Your task to perform on an android device: toggle wifi Image 0: 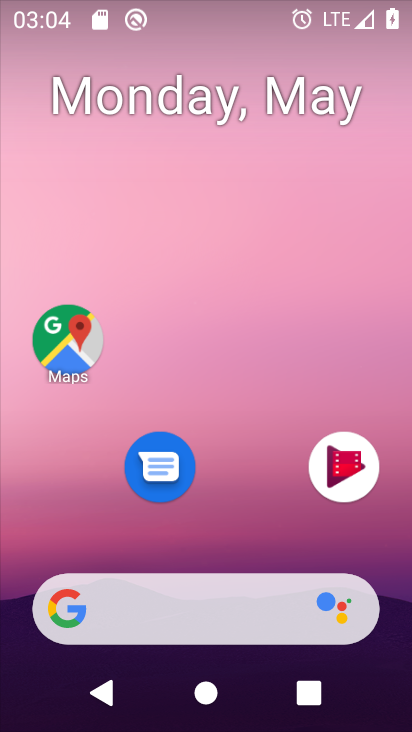
Step 0: drag from (224, 562) to (256, 156)
Your task to perform on an android device: toggle wifi Image 1: 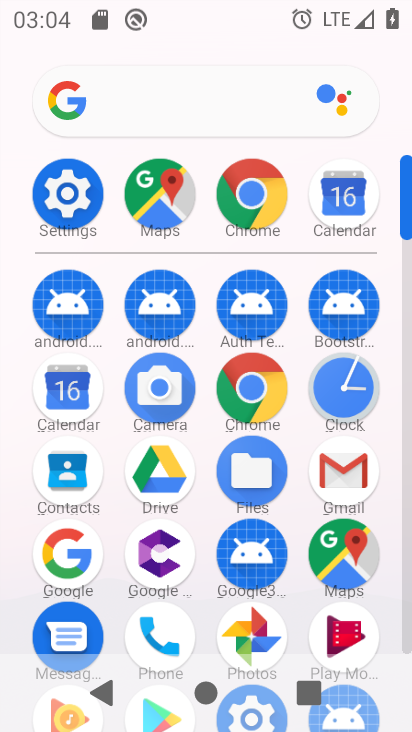
Step 1: click (58, 196)
Your task to perform on an android device: toggle wifi Image 2: 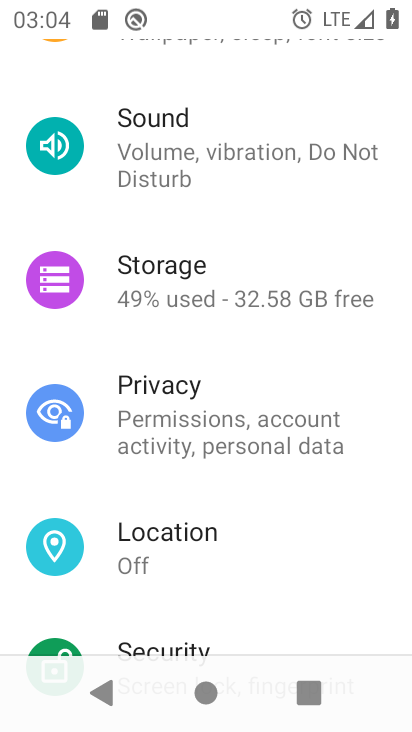
Step 2: drag from (300, 159) to (259, 501)
Your task to perform on an android device: toggle wifi Image 3: 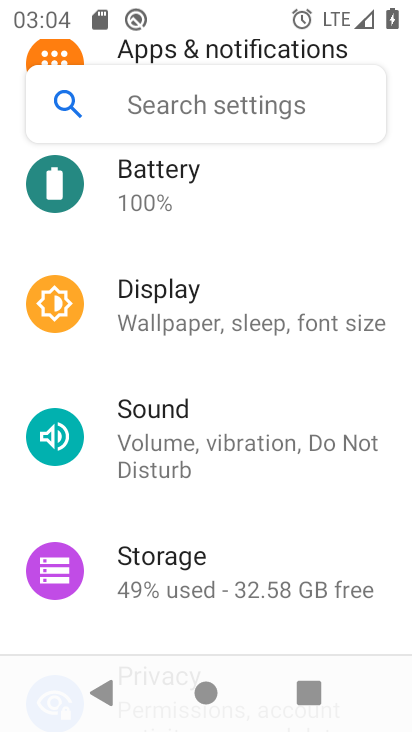
Step 3: drag from (262, 222) to (210, 635)
Your task to perform on an android device: toggle wifi Image 4: 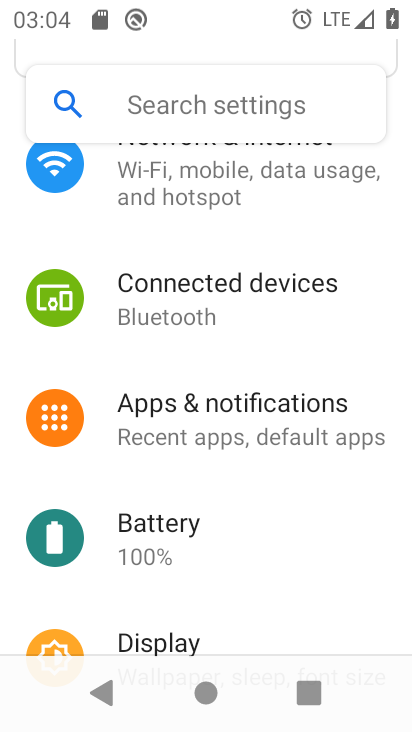
Step 4: drag from (273, 271) to (253, 506)
Your task to perform on an android device: toggle wifi Image 5: 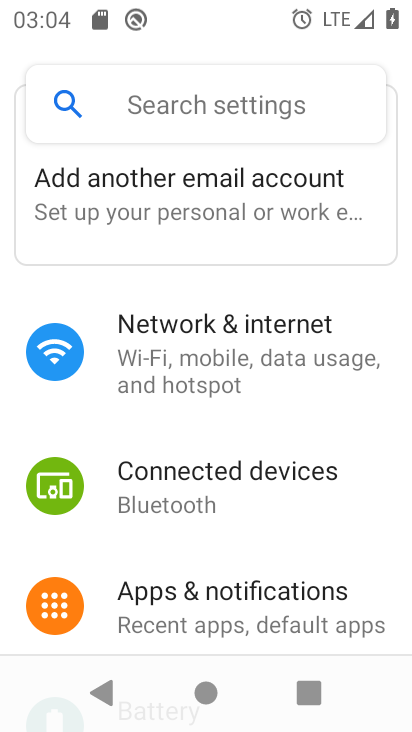
Step 5: click (246, 328)
Your task to perform on an android device: toggle wifi Image 6: 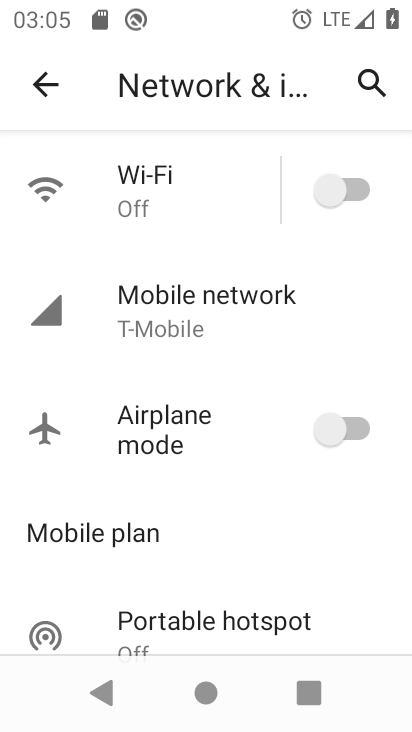
Step 6: click (345, 193)
Your task to perform on an android device: toggle wifi Image 7: 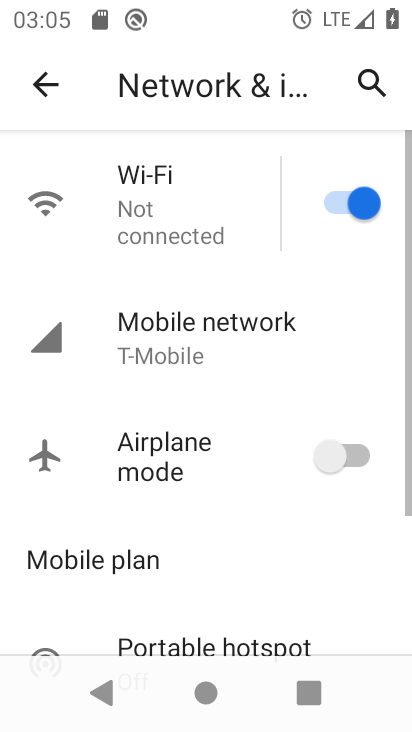
Step 7: task complete